Your task to perform on an android device: empty trash in the gmail app Image 0: 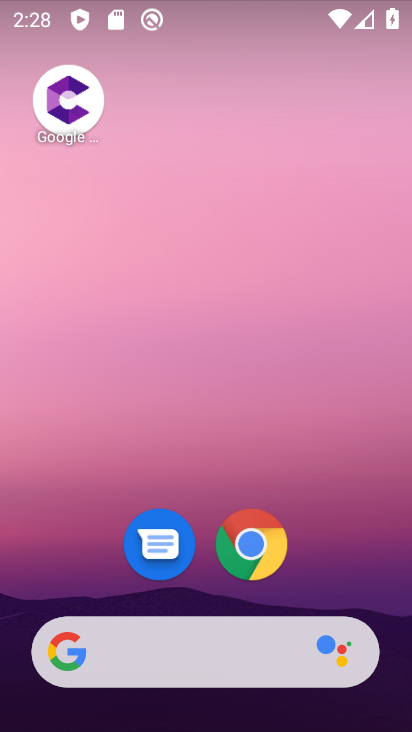
Step 0: drag from (331, 581) to (273, 162)
Your task to perform on an android device: empty trash in the gmail app Image 1: 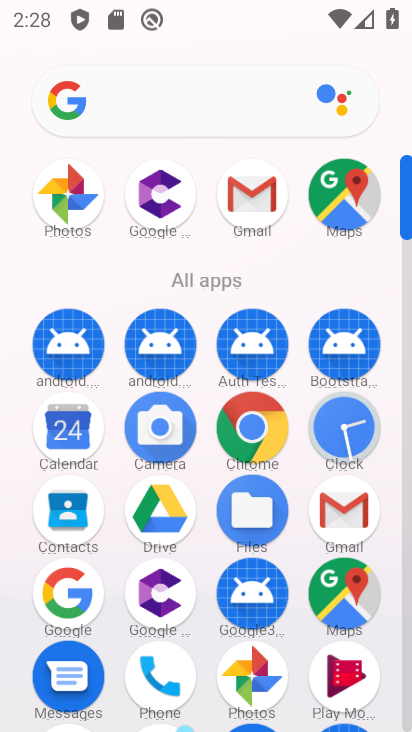
Step 1: click (254, 195)
Your task to perform on an android device: empty trash in the gmail app Image 2: 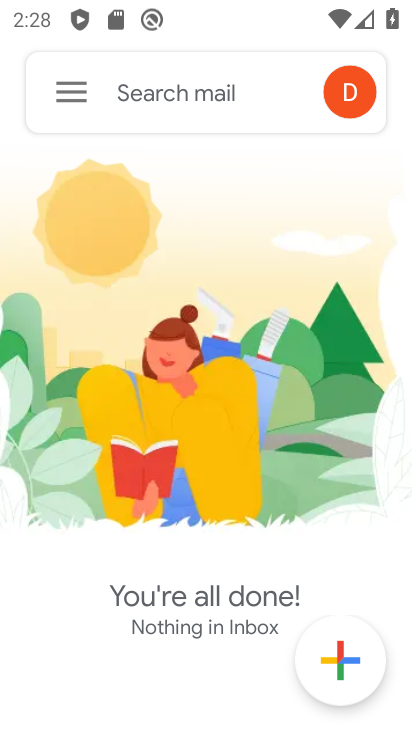
Step 2: click (76, 92)
Your task to perform on an android device: empty trash in the gmail app Image 3: 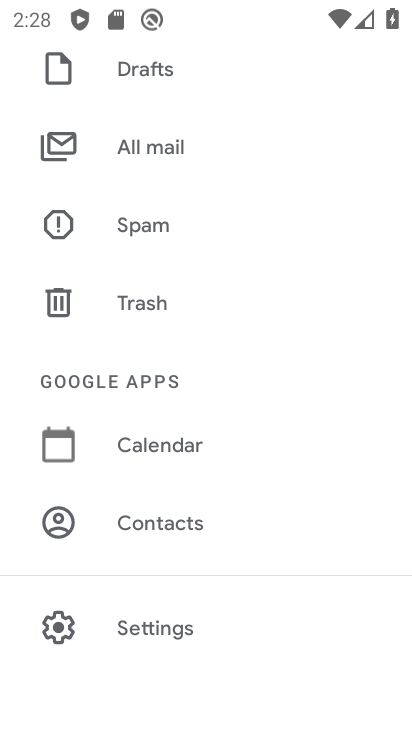
Step 3: click (154, 314)
Your task to perform on an android device: empty trash in the gmail app Image 4: 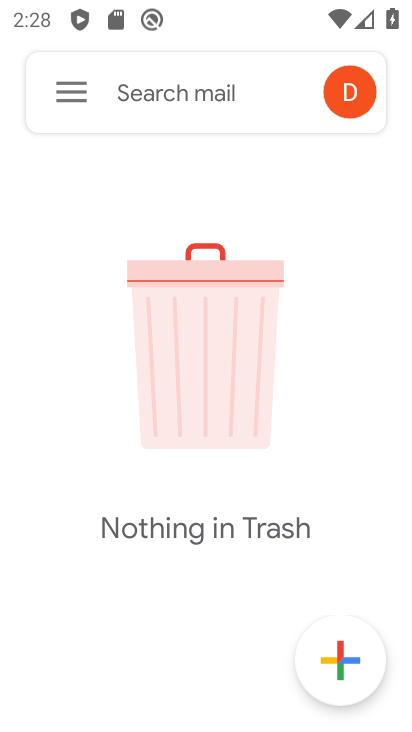
Step 4: task complete